Your task to perform on an android device: check the backup settings in the google photos Image 0: 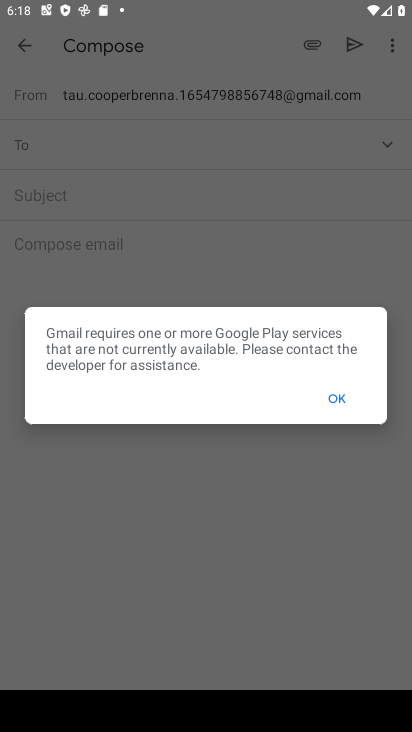
Step 0: press home button
Your task to perform on an android device: check the backup settings in the google photos Image 1: 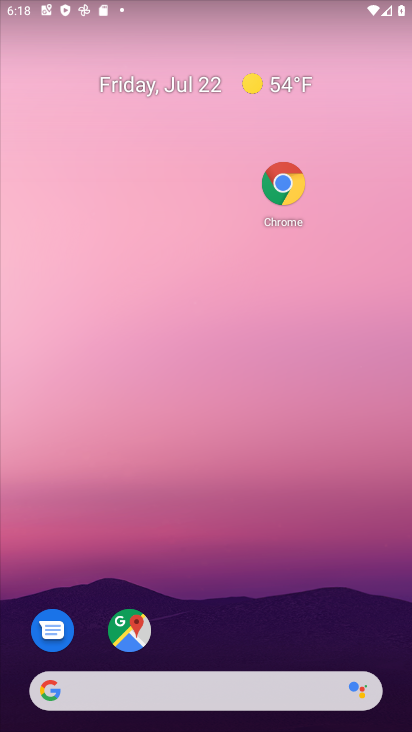
Step 1: drag from (209, 624) to (203, 71)
Your task to perform on an android device: check the backup settings in the google photos Image 2: 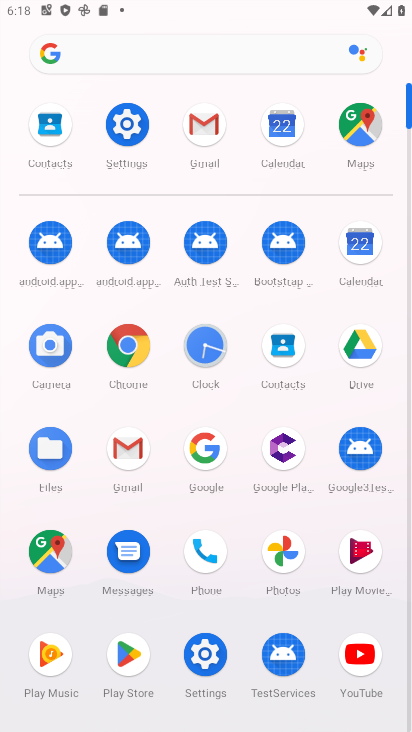
Step 2: click (274, 561)
Your task to perform on an android device: check the backup settings in the google photos Image 3: 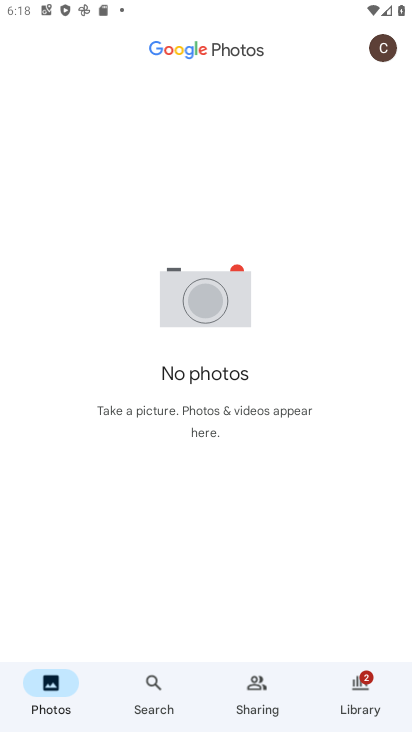
Step 3: click (385, 45)
Your task to perform on an android device: check the backup settings in the google photos Image 4: 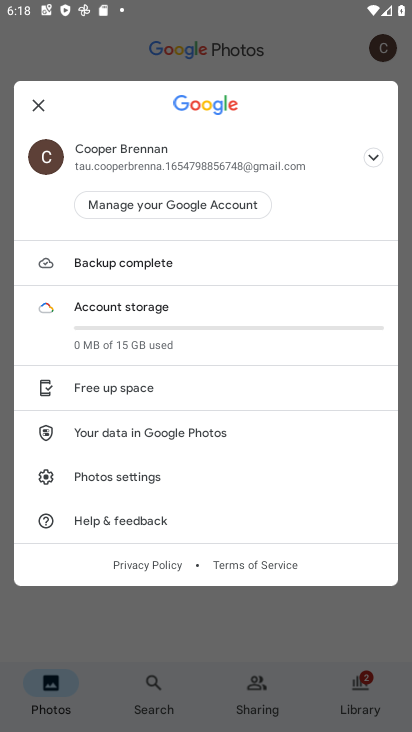
Step 4: click (144, 476)
Your task to perform on an android device: check the backup settings in the google photos Image 5: 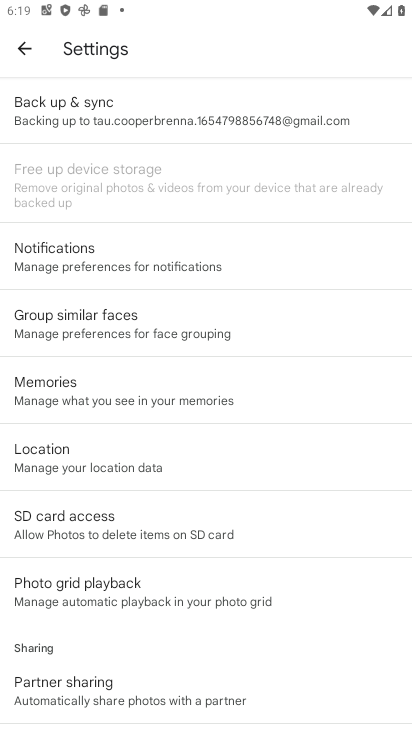
Step 5: click (153, 120)
Your task to perform on an android device: check the backup settings in the google photos Image 6: 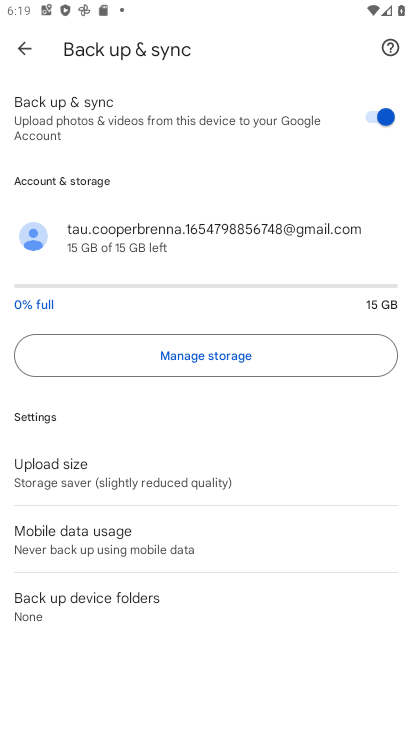
Step 6: task complete